Your task to perform on an android device: open device folders in google photos Image 0: 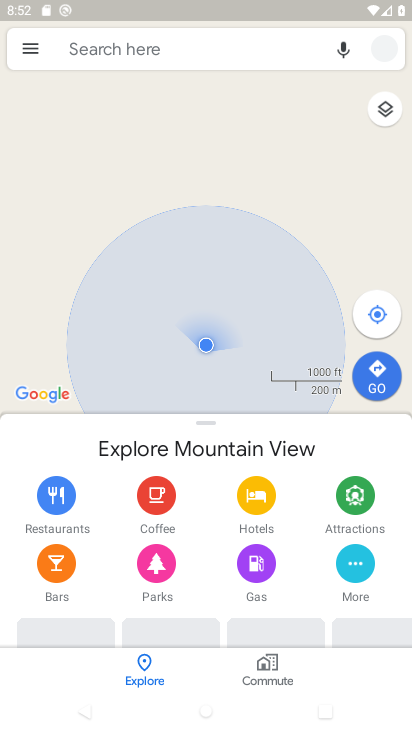
Step 0: press home button
Your task to perform on an android device: open device folders in google photos Image 1: 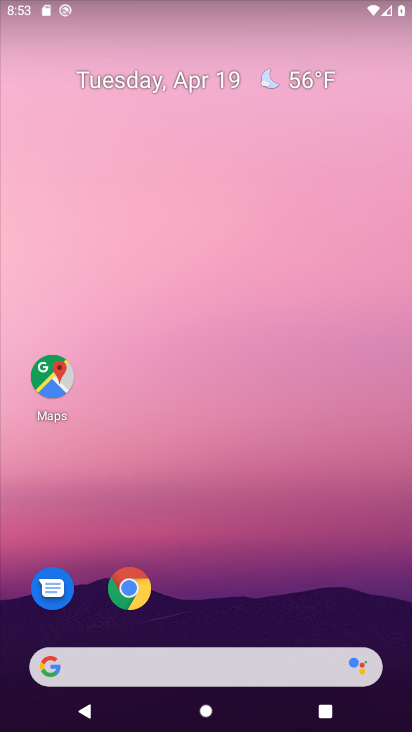
Step 1: drag from (209, 623) to (215, 18)
Your task to perform on an android device: open device folders in google photos Image 2: 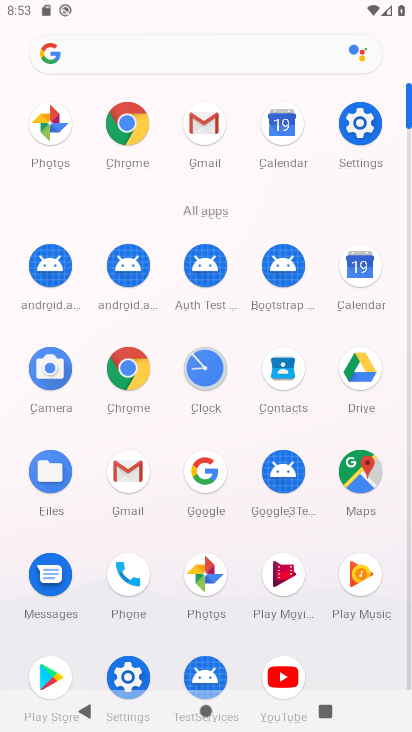
Step 2: click (202, 566)
Your task to perform on an android device: open device folders in google photos Image 3: 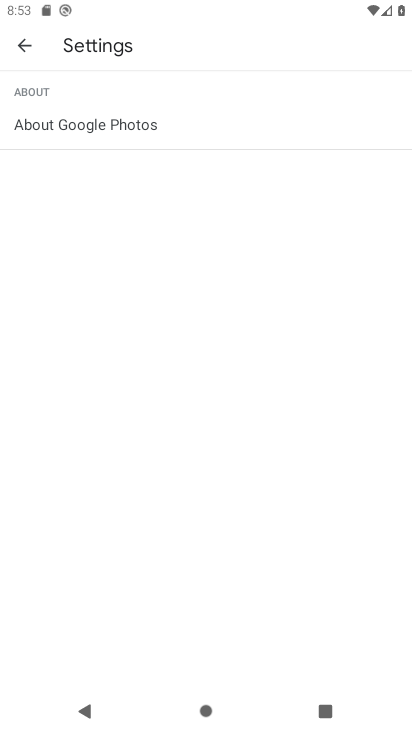
Step 3: click (29, 37)
Your task to perform on an android device: open device folders in google photos Image 4: 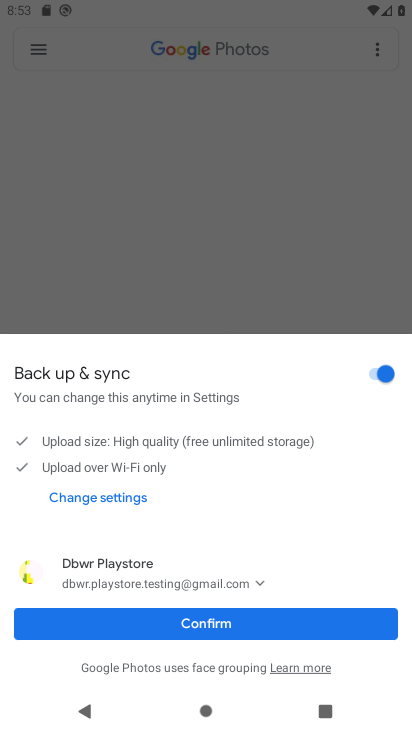
Step 4: click (211, 621)
Your task to perform on an android device: open device folders in google photos Image 5: 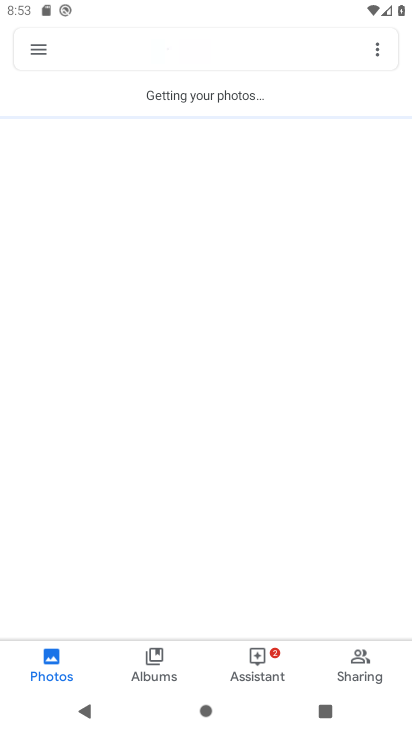
Step 5: click (37, 44)
Your task to perform on an android device: open device folders in google photos Image 6: 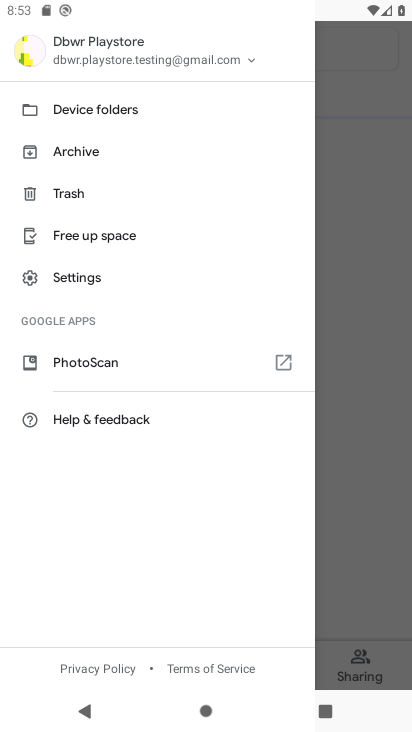
Step 6: click (151, 106)
Your task to perform on an android device: open device folders in google photos Image 7: 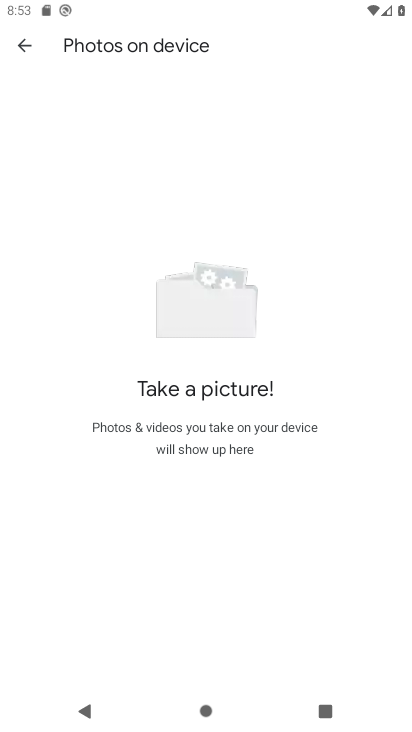
Step 7: task complete